Your task to perform on an android device: delete a single message in the gmail app Image 0: 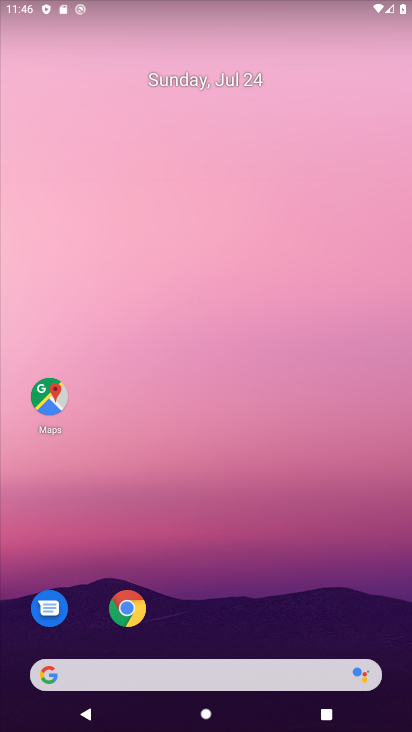
Step 0: press home button
Your task to perform on an android device: delete a single message in the gmail app Image 1: 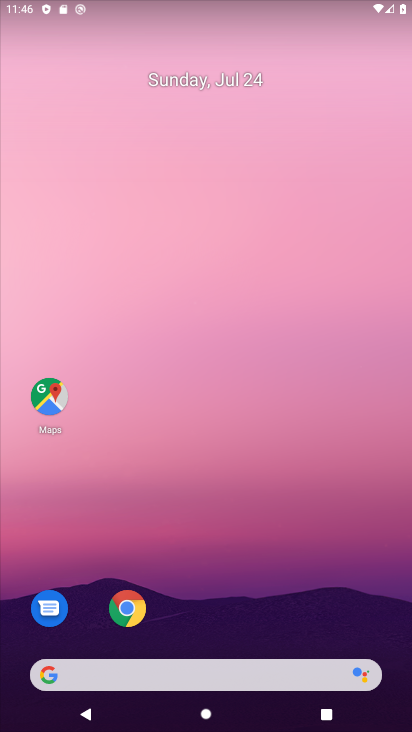
Step 1: drag from (3, 723) to (229, 79)
Your task to perform on an android device: delete a single message in the gmail app Image 2: 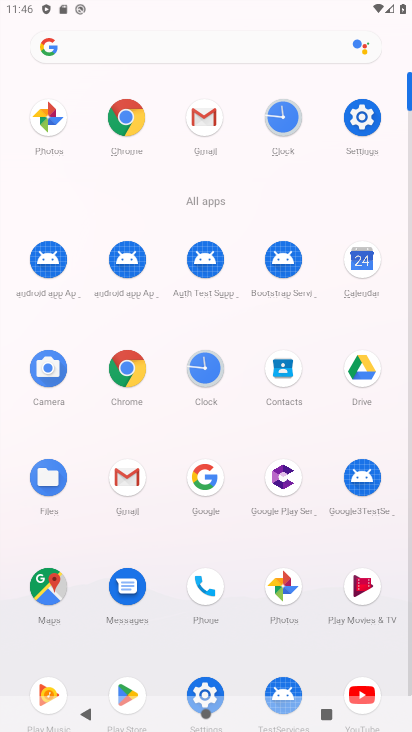
Step 2: click (219, 120)
Your task to perform on an android device: delete a single message in the gmail app Image 3: 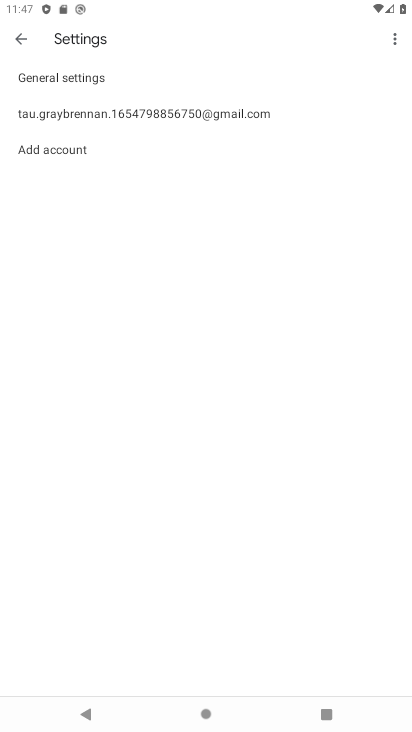
Step 3: click (23, 31)
Your task to perform on an android device: delete a single message in the gmail app Image 4: 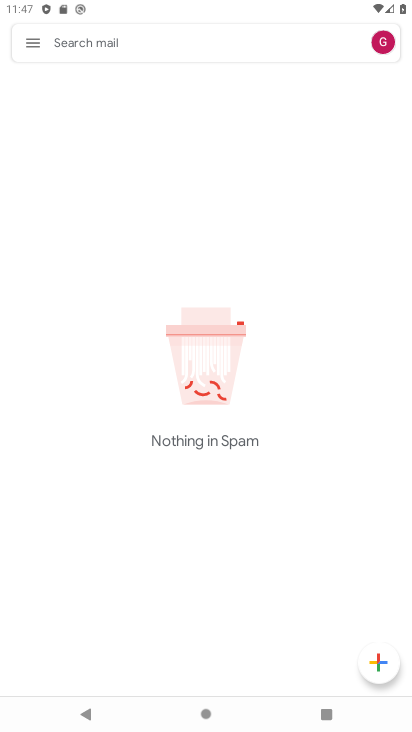
Step 4: click (23, 31)
Your task to perform on an android device: delete a single message in the gmail app Image 5: 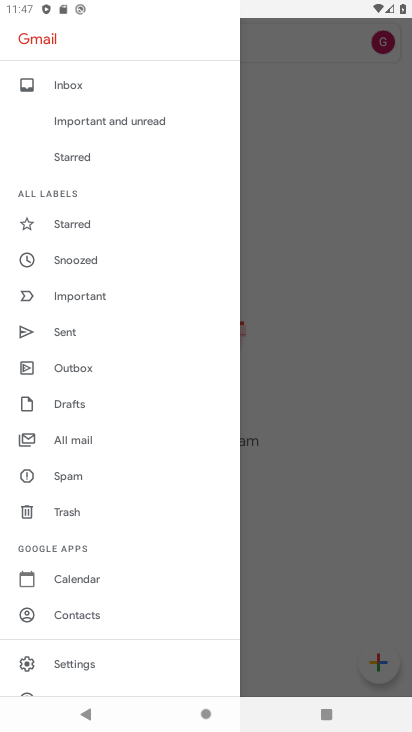
Step 5: click (67, 92)
Your task to perform on an android device: delete a single message in the gmail app Image 6: 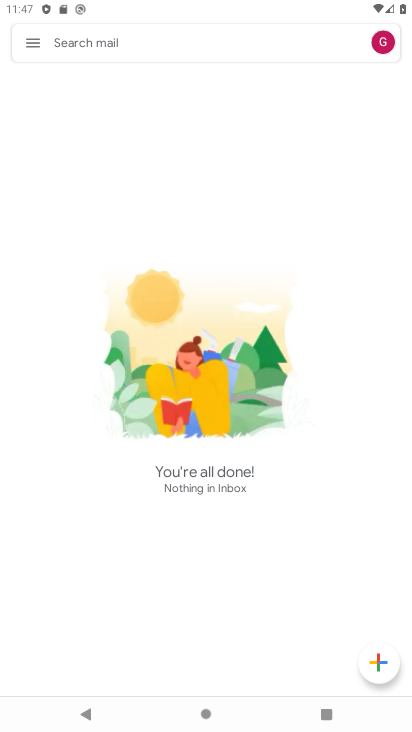
Step 6: task complete